Your task to perform on an android device: Check the news Image 0: 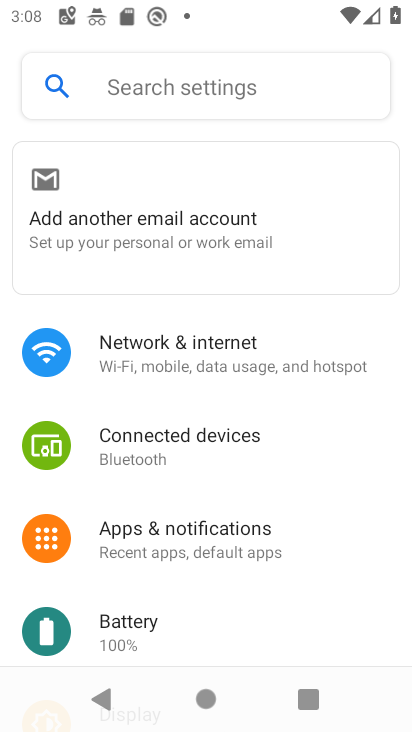
Step 0: press home button
Your task to perform on an android device: Check the news Image 1: 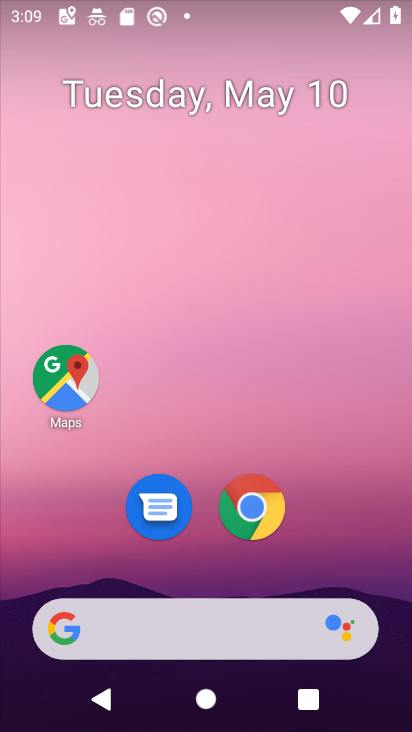
Step 1: click (237, 494)
Your task to perform on an android device: Check the news Image 2: 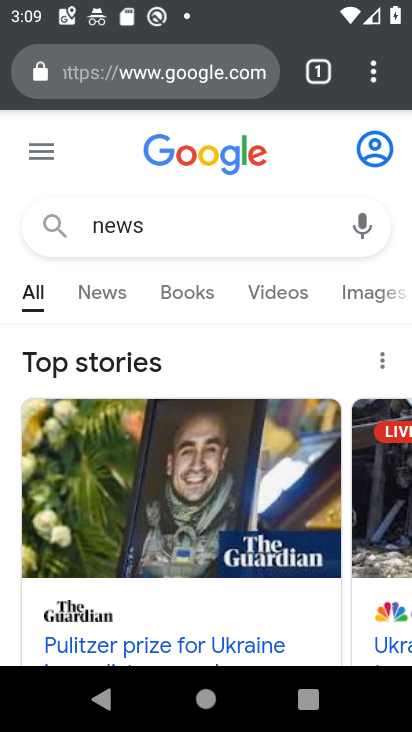
Step 2: click (108, 78)
Your task to perform on an android device: Check the news Image 3: 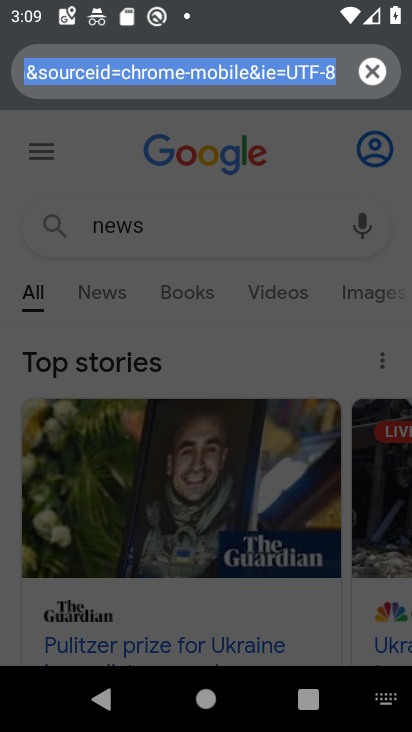
Step 3: type "news"
Your task to perform on an android device: Check the news Image 4: 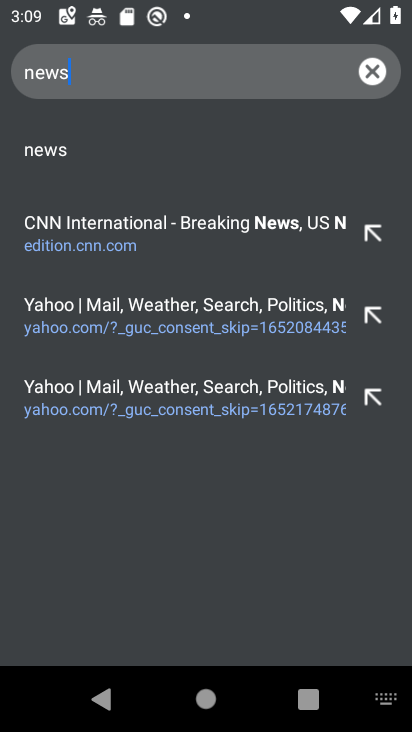
Step 4: click (46, 149)
Your task to perform on an android device: Check the news Image 5: 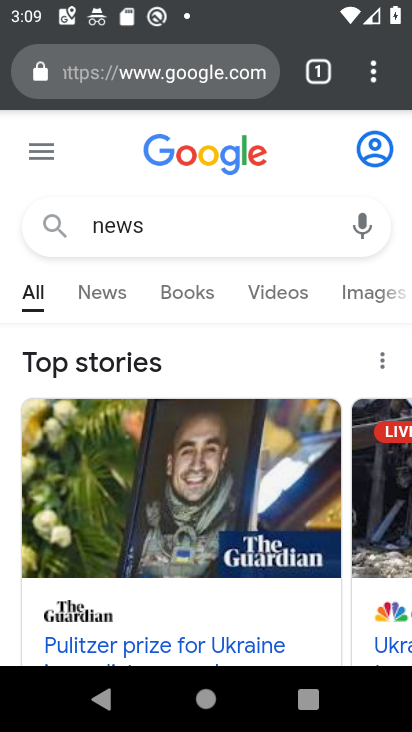
Step 5: click (174, 226)
Your task to perform on an android device: Check the news Image 6: 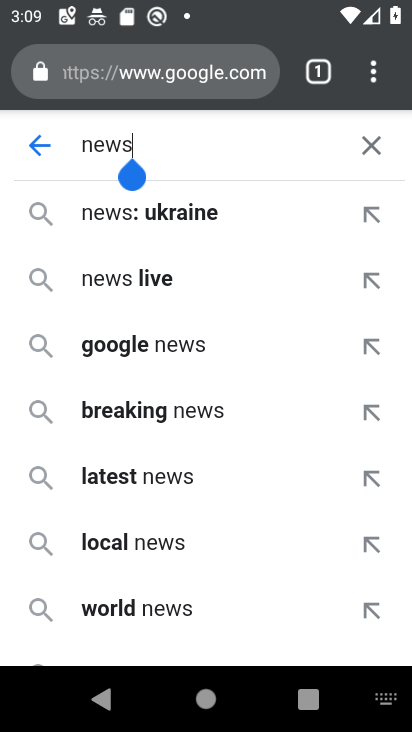
Step 6: click (117, 278)
Your task to perform on an android device: Check the news Image 7: 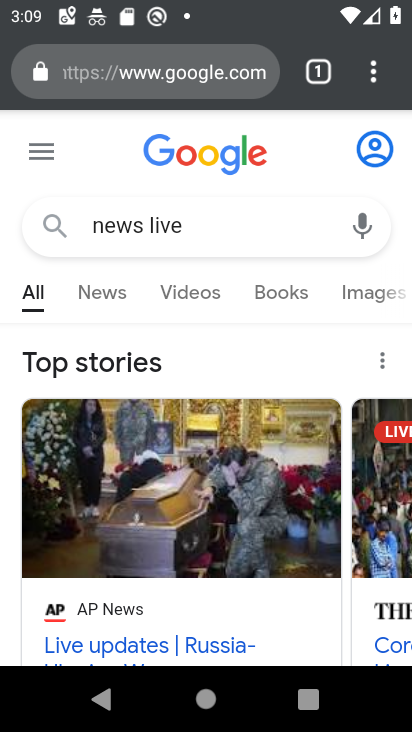
Step 7: task complete